Your task to perform on an android device: delete location history Image 0: 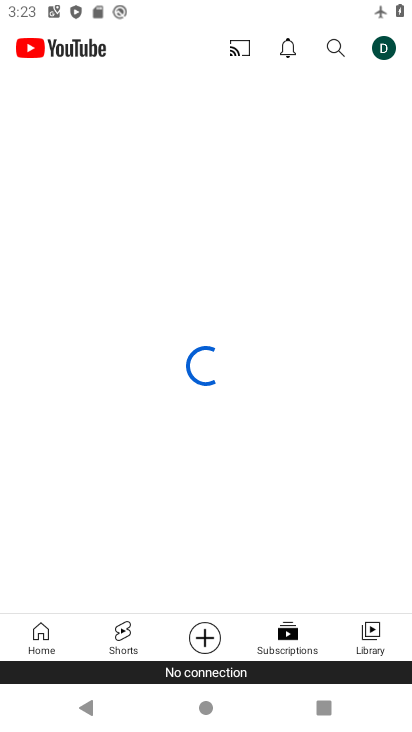
Step 0: press back button
Your task to perform on an android device: delete location history Image 1: 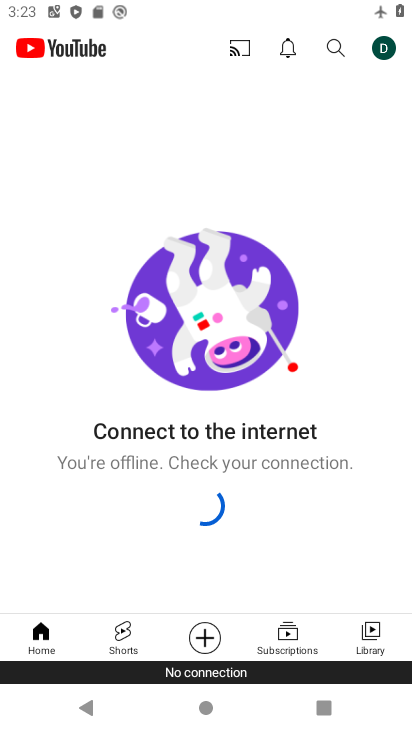
Step 1: press back button
Your task to perform on an android device: delete location history Image 2: 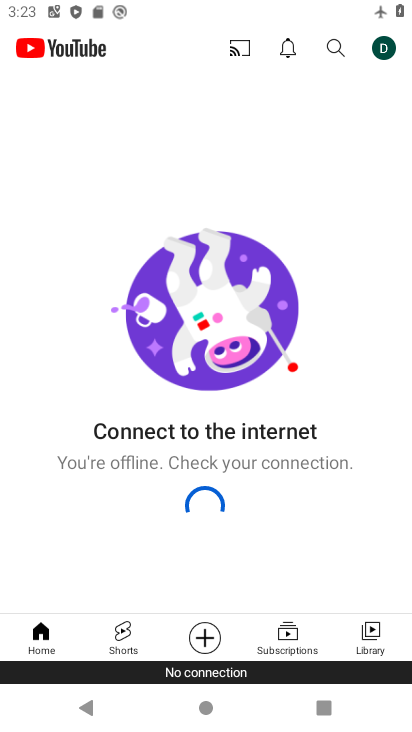
Step 2: press back button
Your task to perform on an android device: delete location history Image 3: 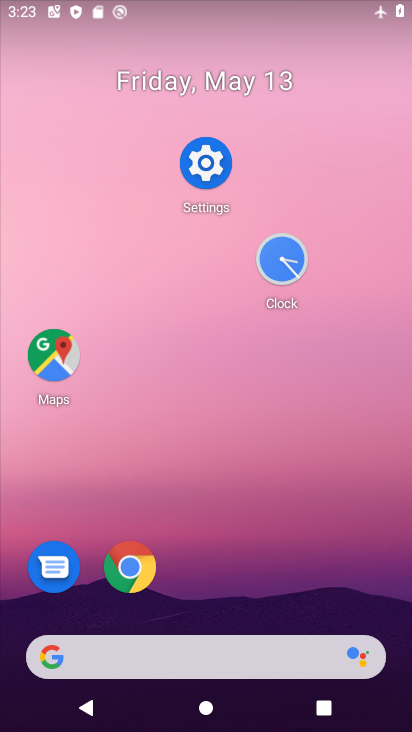
Step 3: click (188, 186)
Your task to perform on an android device: delete location history Image 4: 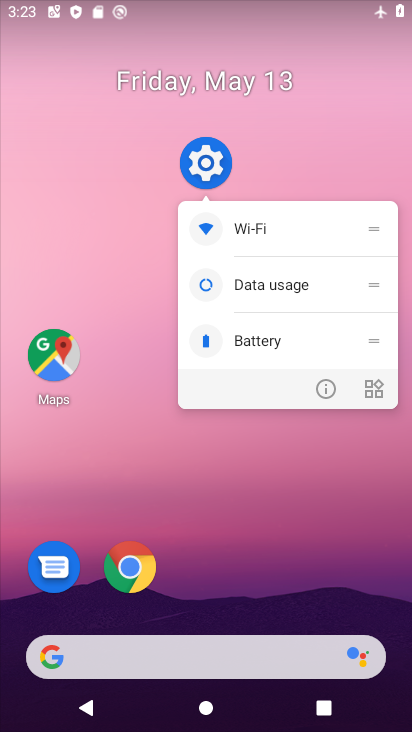
Step 4: click (196, 179)
Your task to perform on an android device: delete location history Image 5: 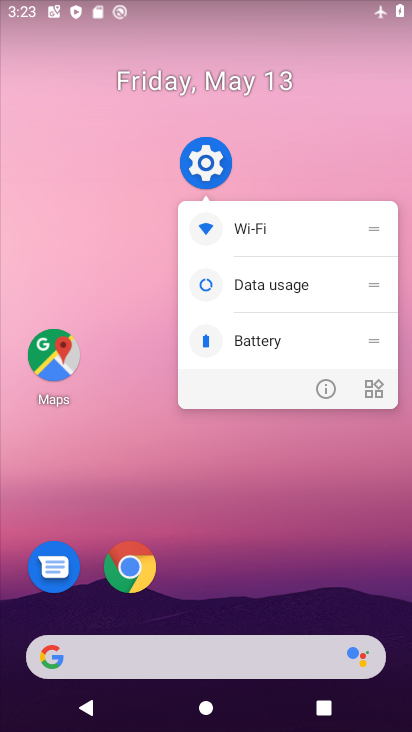
Step 5: click (196, 179)
Your task to perform on an android device: delete location history Image 6: 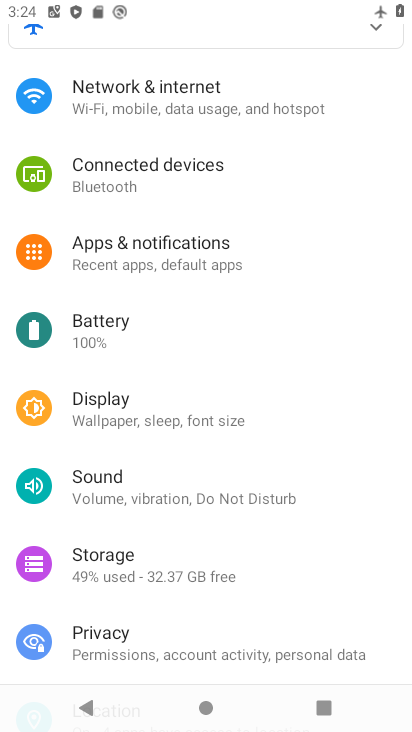
Step 6: drag from (198, 473) to (221, 314)
Your task to perform on an android device: delete location history Image 7: 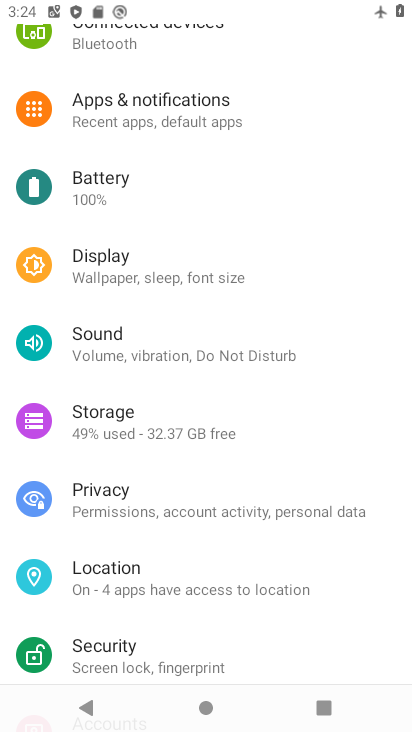
Step 7: click (211, 571)
Your task to perform on an android device: delete location history Image 8: 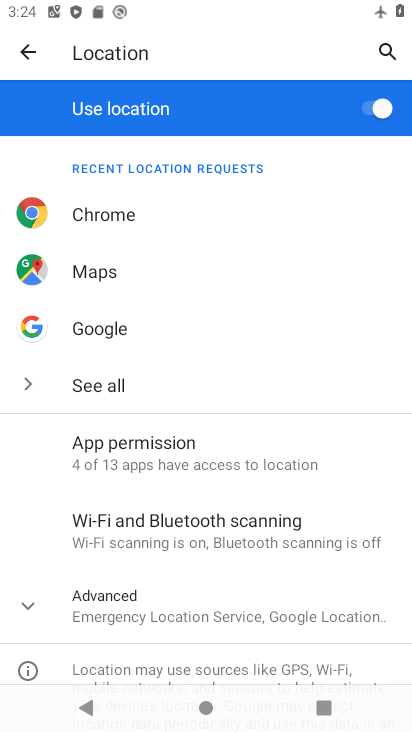
Step 8: drag from (183, 532) to (197, 338)
Your task to perform on an android device: delete location history Image 9: 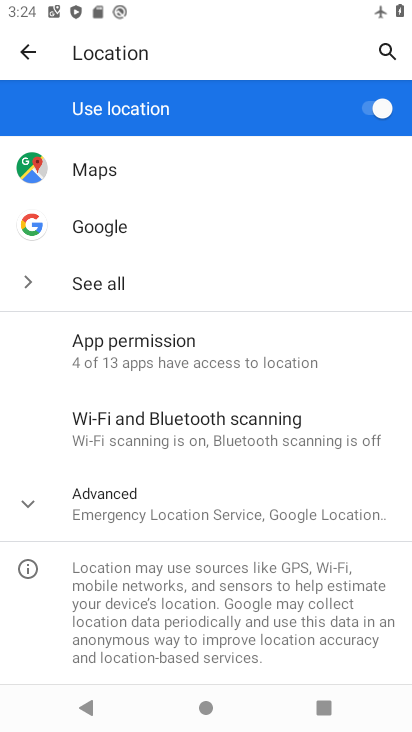
Step 9: click (216, 524)
Your task to perform on an android device: delete location history Image 10: 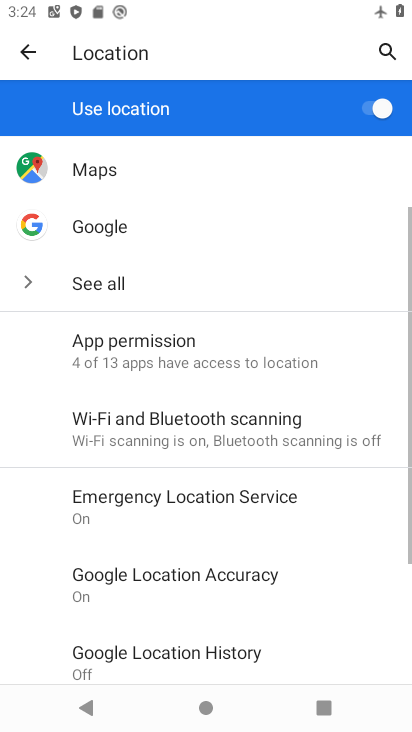
Step 10: drag from (197, 509) to (198, 371)
Your task to perform on an android device: delete location history Image 11: 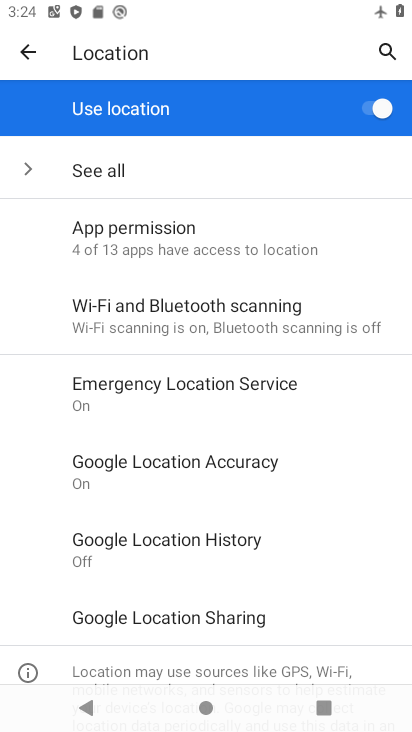
Step 11: click (204, 536)
Your task to perform on an android device: delete location history Image 12: 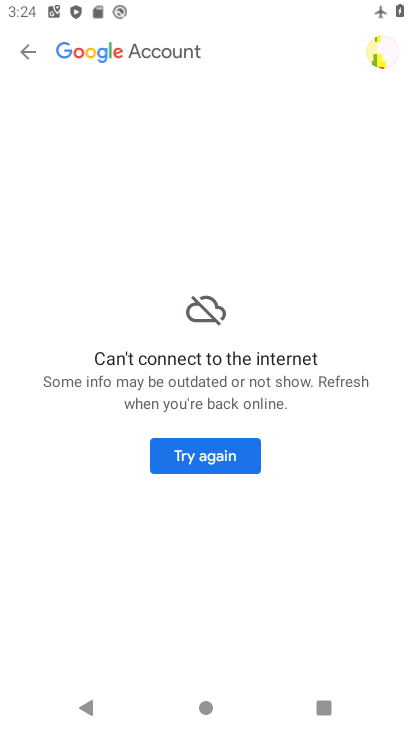
Step 12: task complete